Your task to perform on an android device: Open internet settings Image 0: 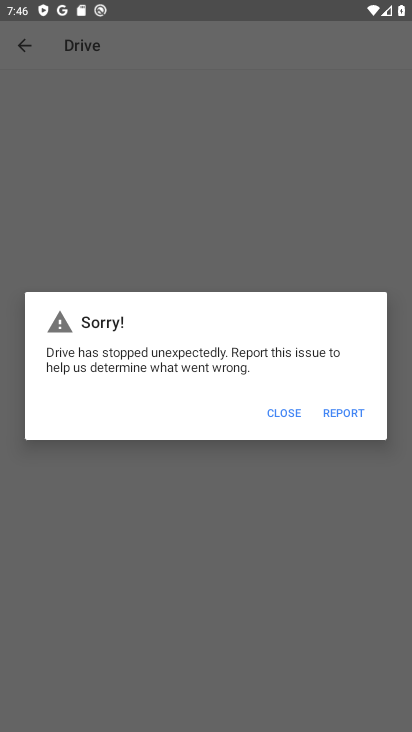
Step 0: press home button
Your task to perform on an android device: Open internet settings Image 1: 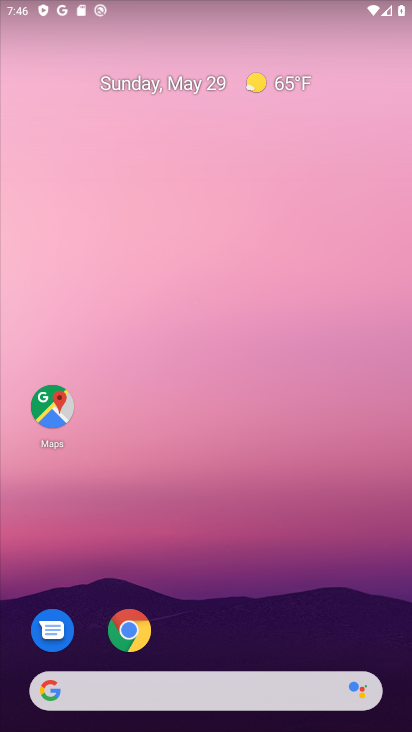
Step 1: drag from (199, 727) to (120, 5)
Your task to perform on an android device: Open internet settings Image 2: 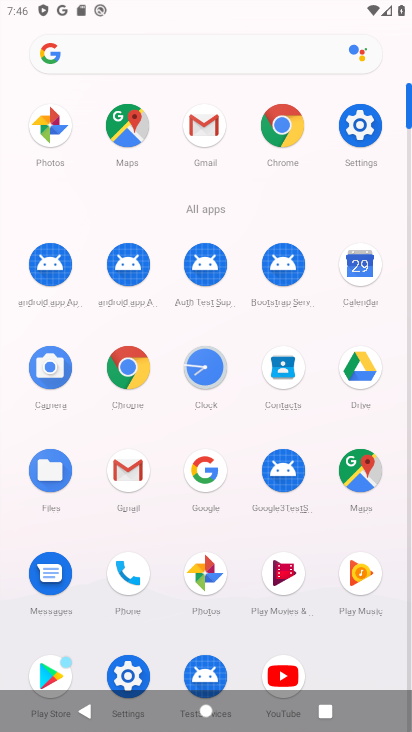
Step 2: click (370, 131)
Your task to perform on an android device: Open internet settings Image 3: 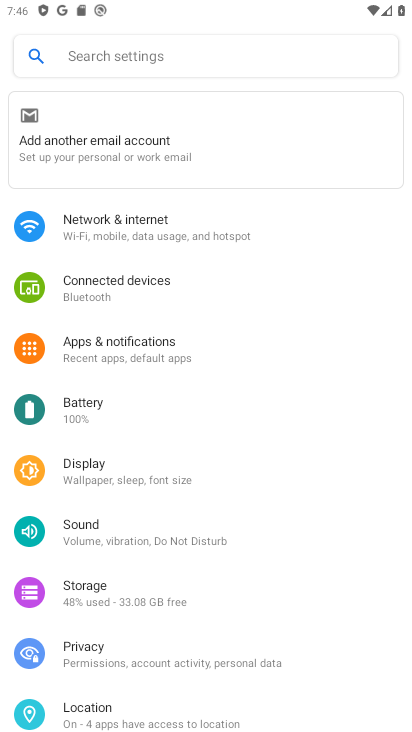
Step 3: click (131, 219)
Your task to perform on an android device: Open internet settings Image 4: 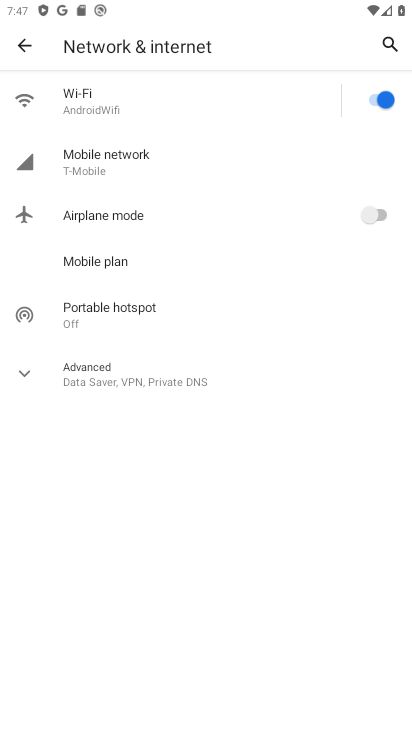
Step 4: task complete